Your task to perform on an android device: Open Google Chrome and click the shortcut for Amazon.com Image 0: 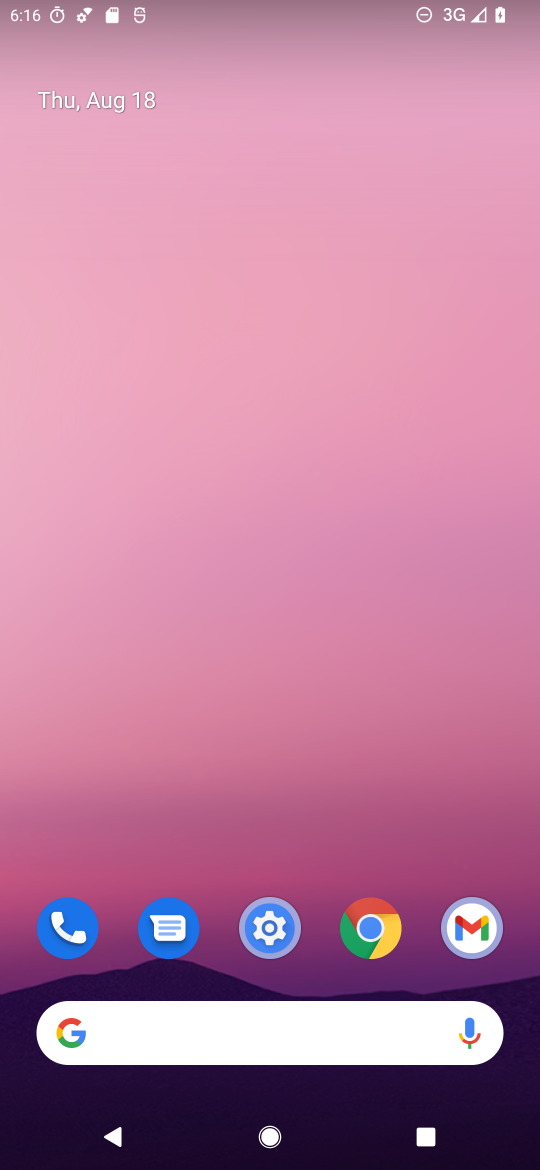
Step 0: drag from (331, 821) to (354, 9)
Your task to perform on an android device: Open Google Chrome and click the shortcut for Amazon.com Image 1: 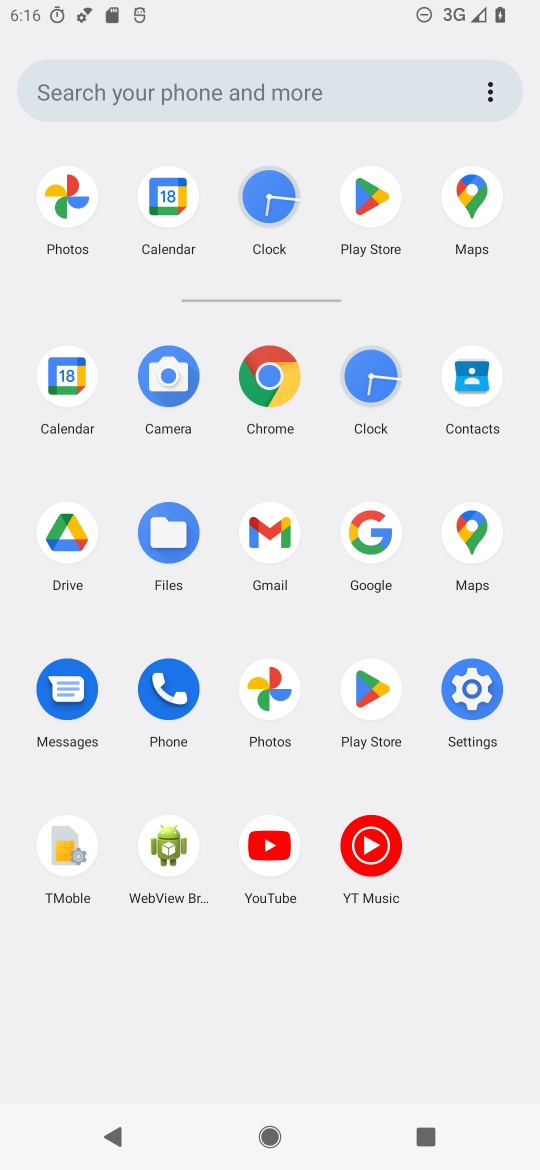
Step 1: click (273, 375)
Your task to perform on an android device: Open Google Chrome and click the shortcut for Amazon.com Image 2: 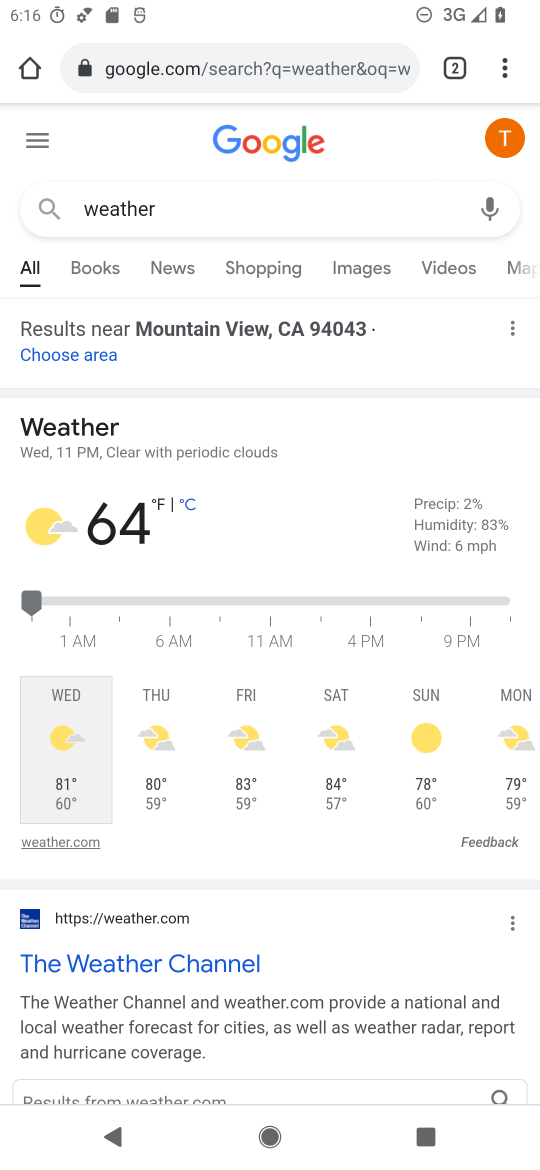
Step 2: drag from (494, 64) to (292, 215)
Your task to perform on an android device: Open Google Chrome and click the shortcut for Amazon.com Image 3: 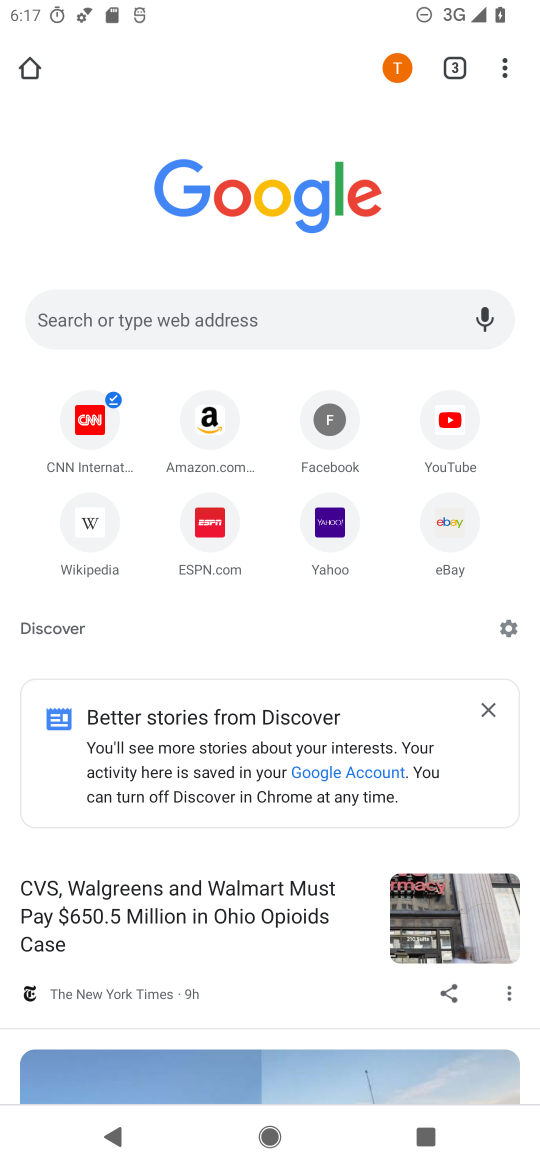
Step 3: click (206, 422)
Your task to perform on an android device: Open Google Chrome and click the shortcut for Amazon.com Image 4: 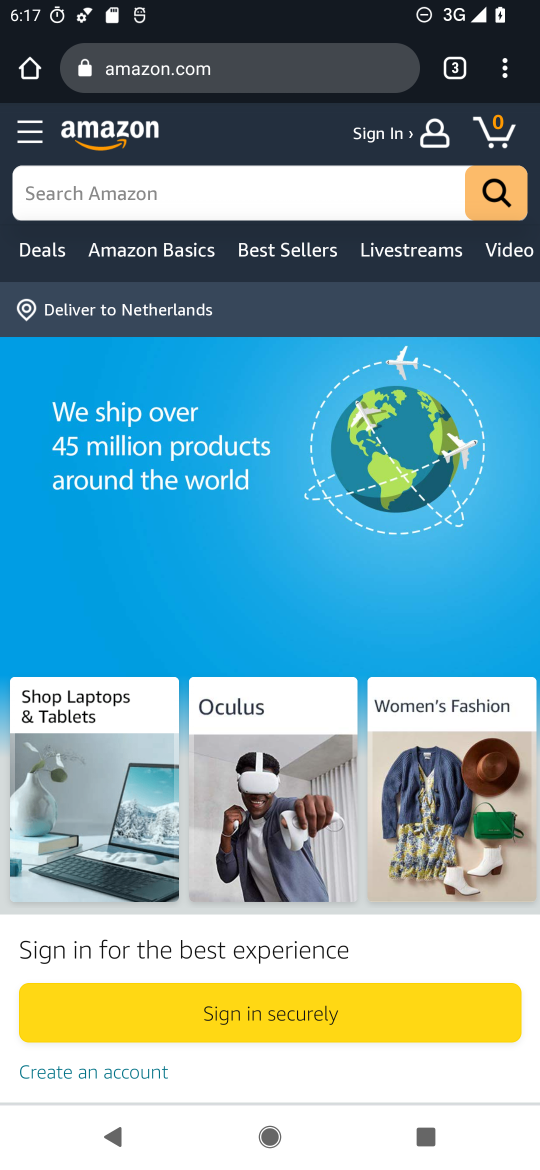
Step 4: task complete